Your task to perform on an android device: Open calendar and show me the fourth week of next month Image 0: 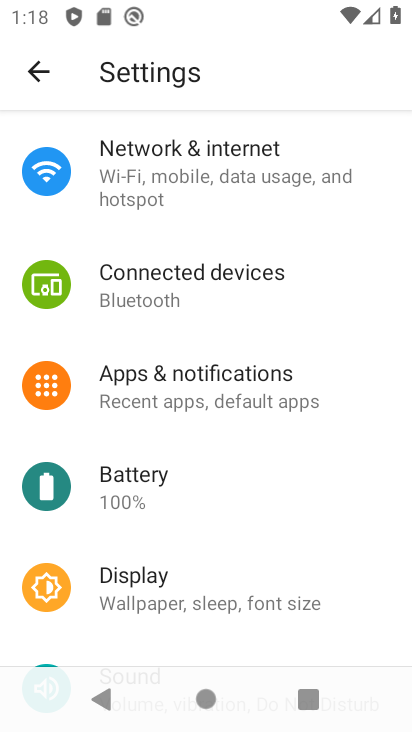
Step 0: press home button
Your task to perform on an android device: Open calendar and show me the fourth week of next month Image 1: 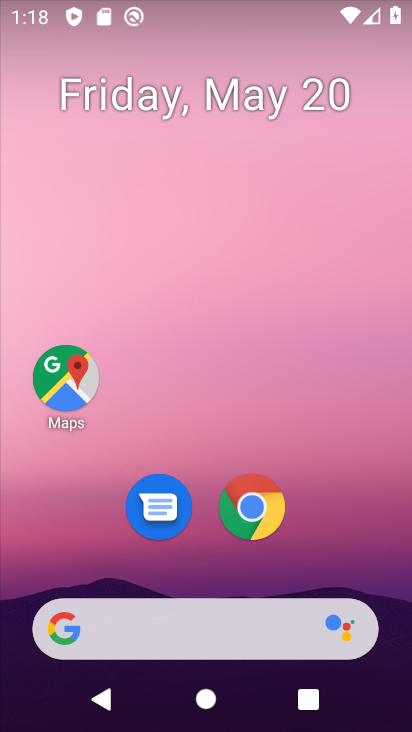
Step 1: drag from (337, 566) to (211, 10)
Your task to perform on an android device: Open calendar and show me the fourth week of next month Image 2: 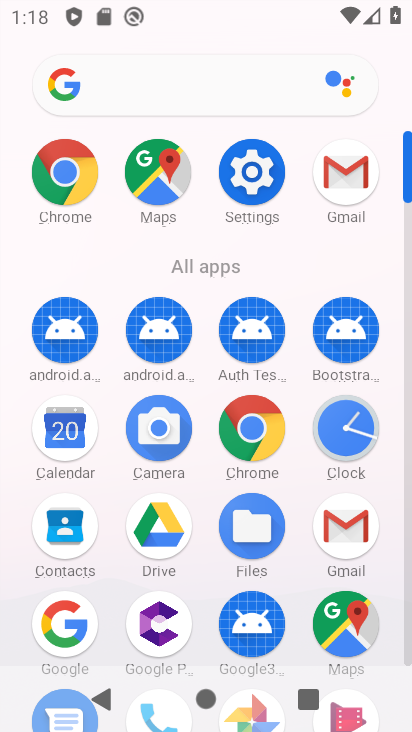
Step 2: click (67, 441)
Your task to perform on an android device: Open calendar and show me the fourth week of next month Image 3: 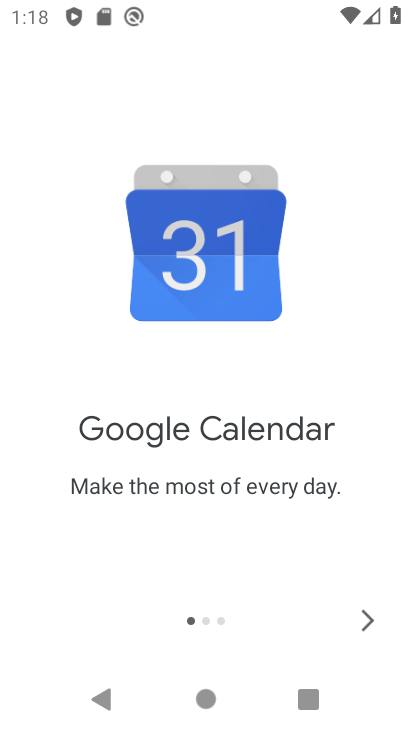
Step 3: click (364, 624)
Your task to perform on an android device: Open calendar and show me the fourth week of next month Image 4: 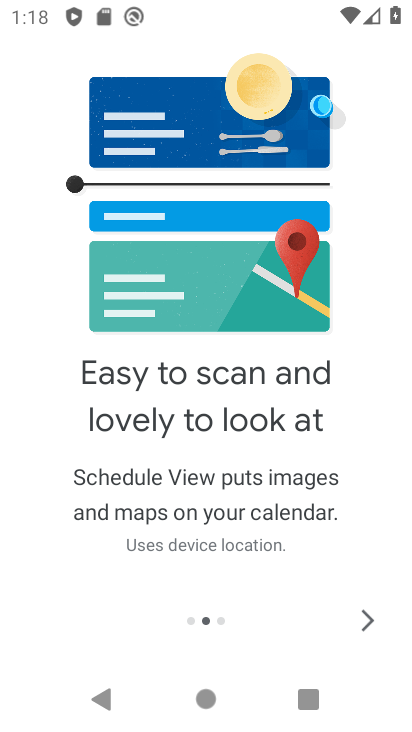
Step 4: click (364, 624)
Your task to perform on an android device: Open calendar and show me the fourth week of next month Image 5: 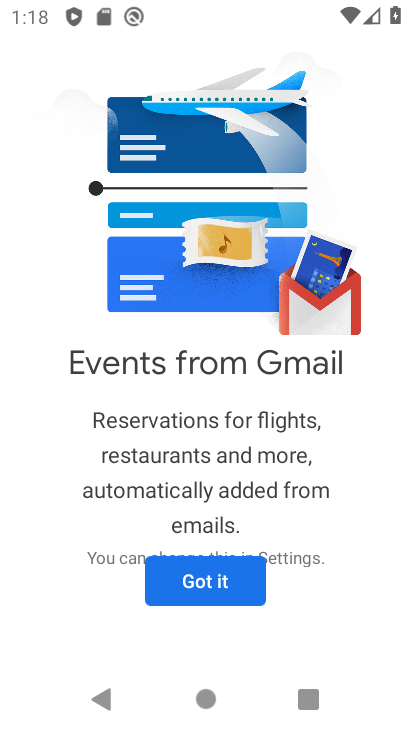
Step 5: click (250, 591)
Your task to perform on an android device: Open calendar and show me the fourth week of next month Image 6: 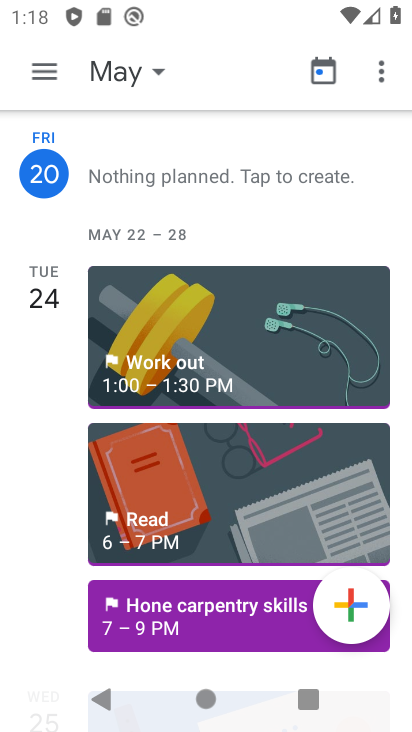
Step 6: click (45, 75)
Your task to perform on an android device: Open calendar and show me the fourth week of next month Image 7: 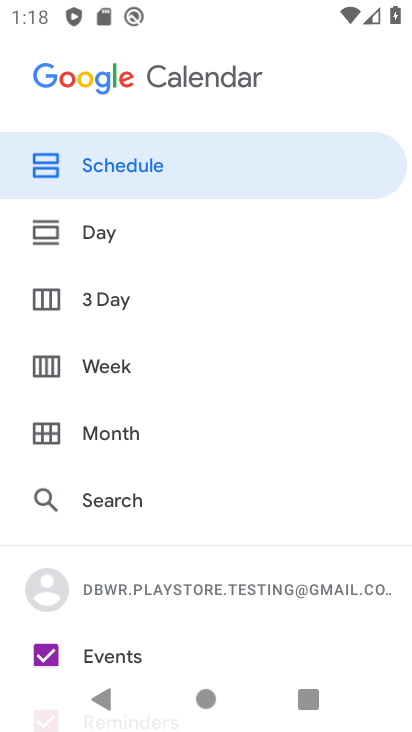
Step 7: click (128, 353)
Your task to perform on an android device: Open calendar and show me the fourth week of next month Image 8: 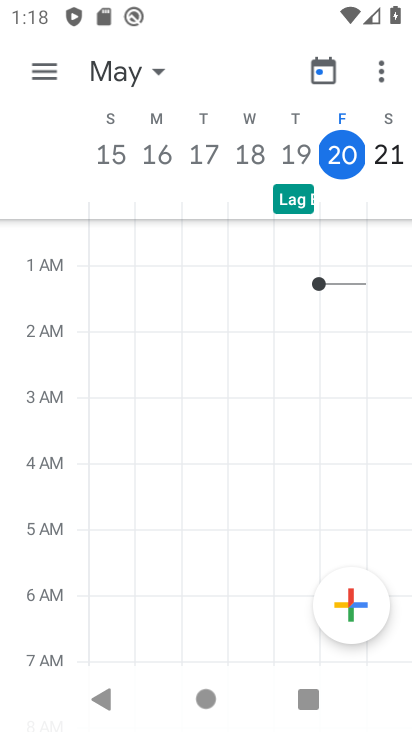
Step 8: click (116, 80)
Your task to perform on an android device: Open calendar and show me the fourth week of next month Image 9: 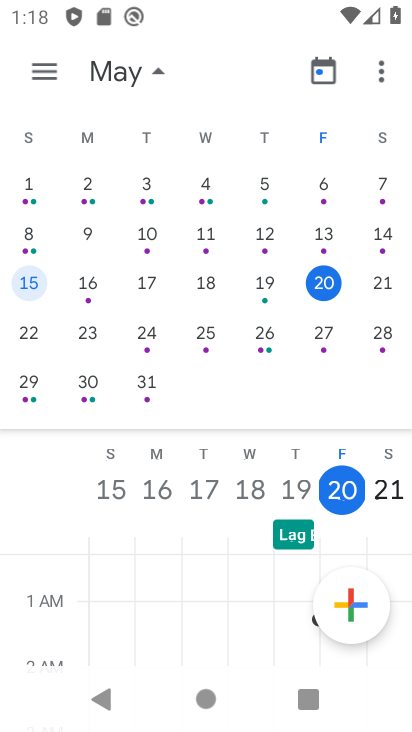
Step 9: drag from (379, 325) to (2, 296)
Your task to perform on an android device: Open calendar and show me the fourth week of next month Image 10: 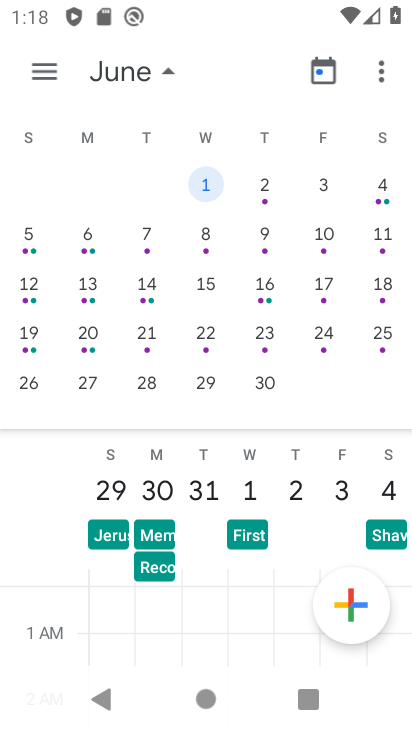
Step 10: click (188, 333)
Your task to perform on an android device: Open calendar and show me the fourth week of next month Image 11: 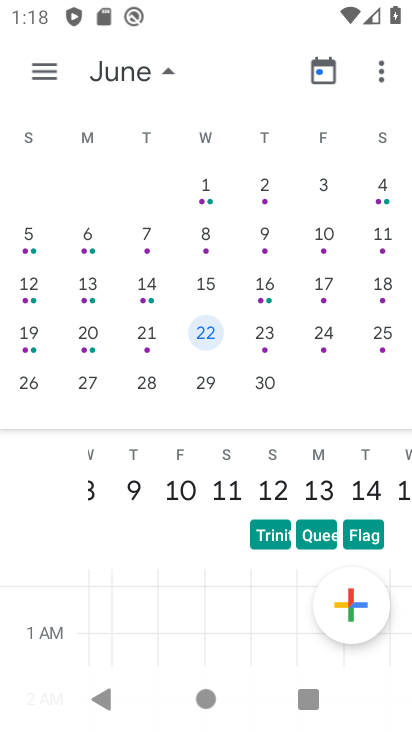
Step 11: click (190, 333)
Your task to perform on an android device: Open calendar and show me the fourth week of next month Image 12: 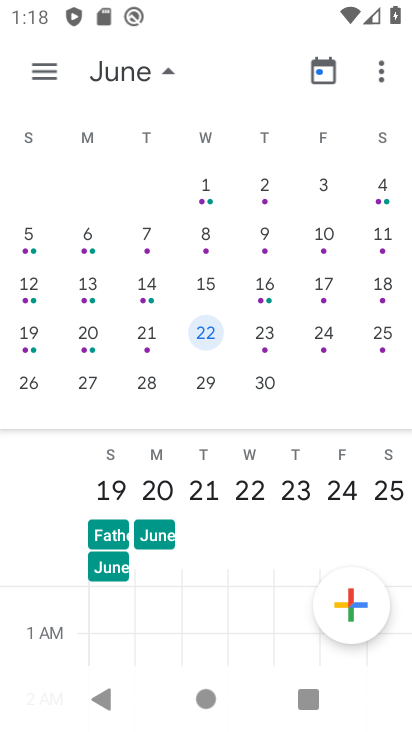
Step 12: click (187, 327)
Your task to perform on an android device: Open calendar and show me the fourth week of next month Image 13: 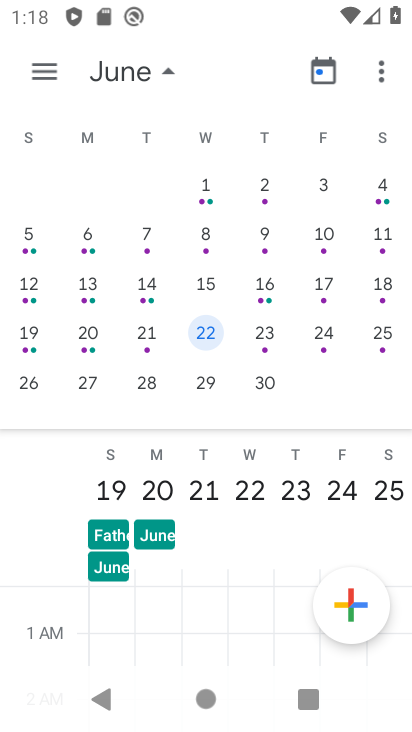
Step 13: task complete